Your task to perform on an android device: change the clock display to digital Image 0: 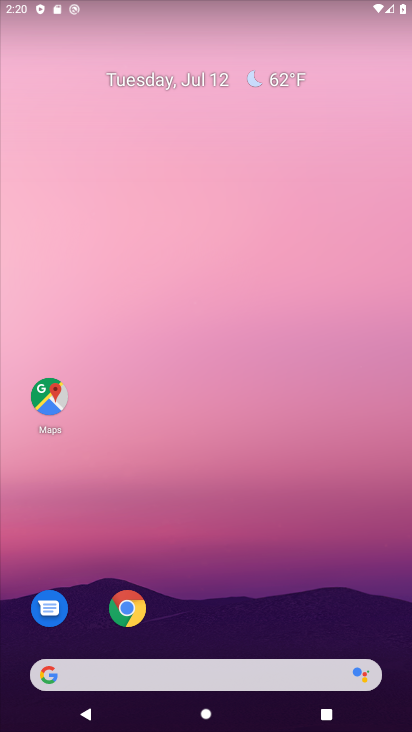
Step 0: drag from (186, 664) to (318, 118)
Your task to perform on an android device: change the clock display to digital Image 1: 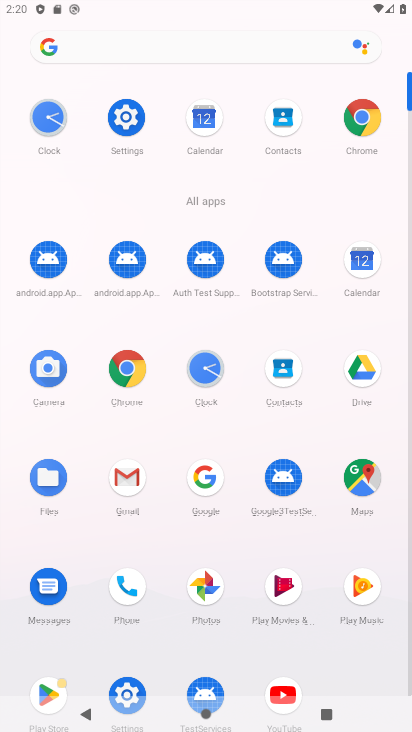
Step 1: click (57, 115)
Your task to perform on an android device: change the clock display to digital Image 2: 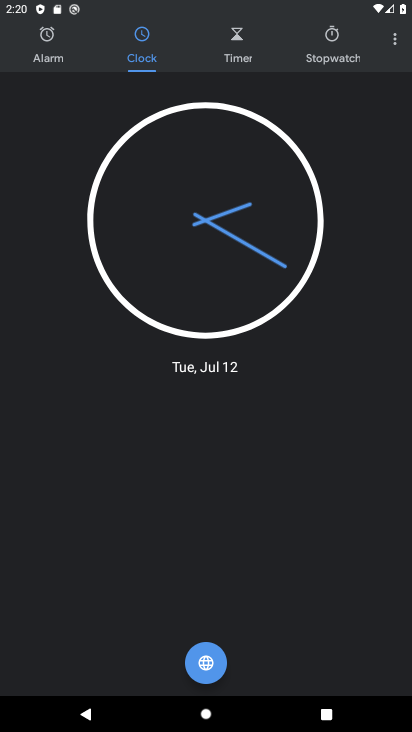
Step 2: click (394, 39)
Your task to perform on an android device: change the clock display to digital Image 3: 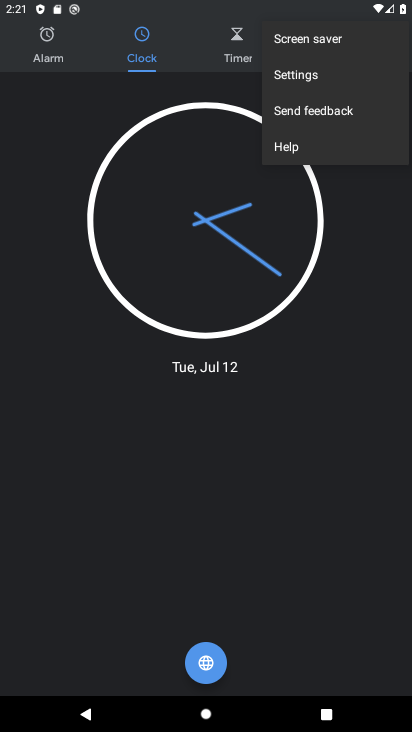
Step 3: click (325, 73)
Your task to perform on an android device: change the clock display to digital Image 4: 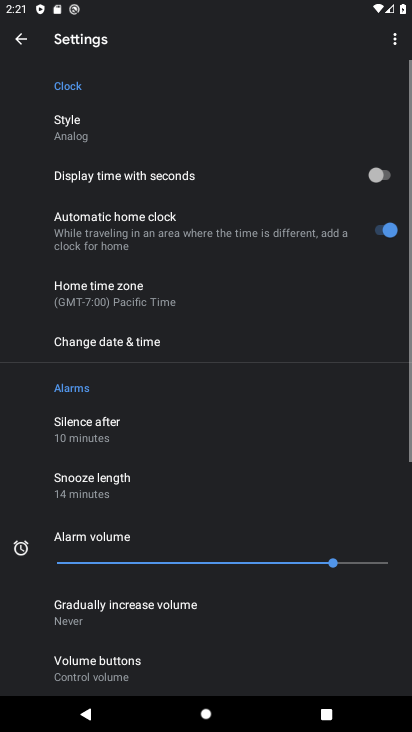
Step 4: click (81, 133)
Your task to perform on an android device: change the clock display to digital Image 5: 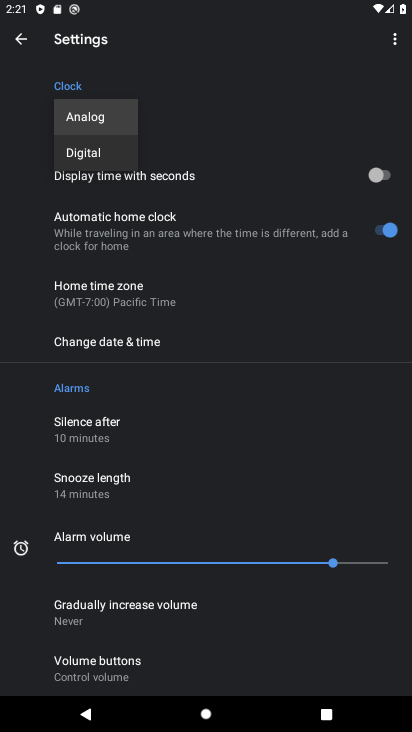
Step 5: click (103, 158)
Your task to perform on an android device: change the clock display to digital Image 6: 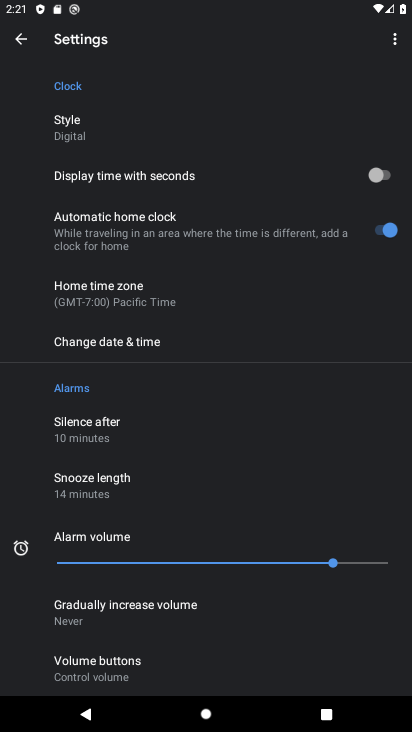
Step 6: task complete